Your task to perform on an android device: Open the web browser Image 0: 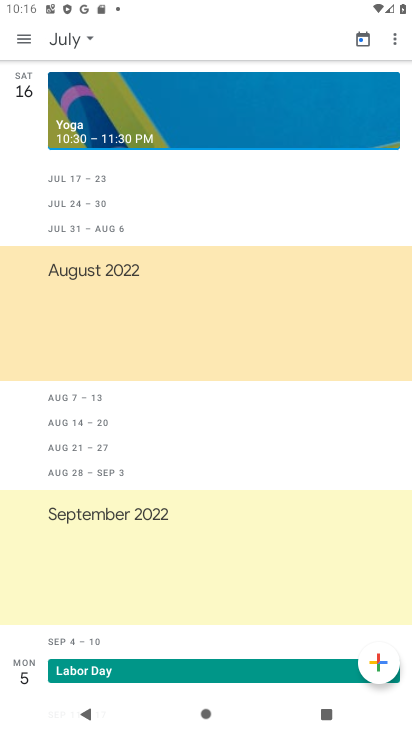
Step 0: press home button
Your task to perform on an android device: Open the web browser Image 1: 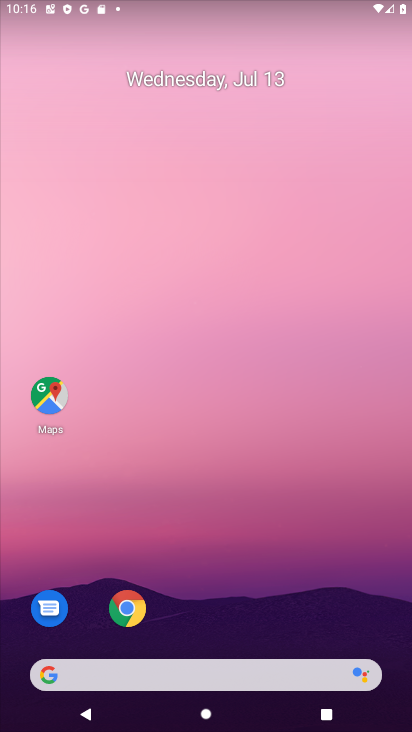
Step 1: click (127, 609)
Your task to perform on an android device: Open the web browser Image 2: 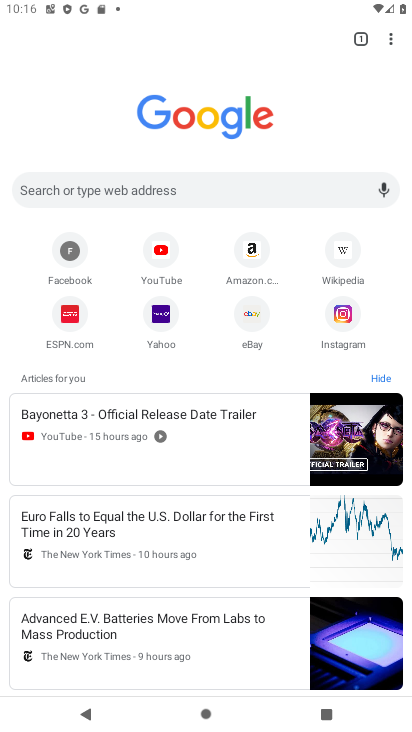
Step 2: task complete